Your task to perform on an android device: Open location settings Image 0: 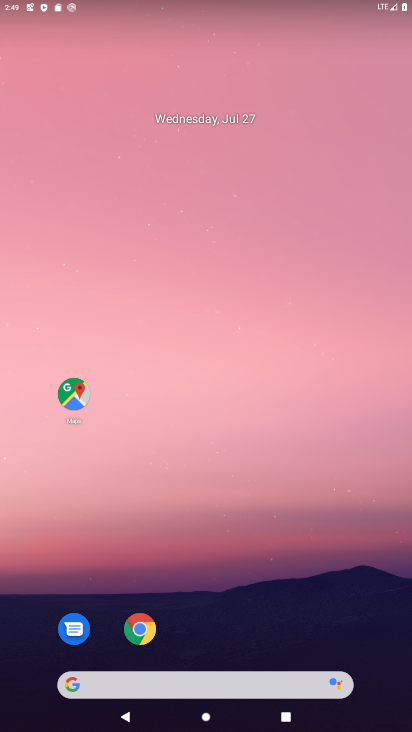
Step 0: drag from (279, 632) to (309, 27)
Your task to perform on an android device: Open location settings Image 1: 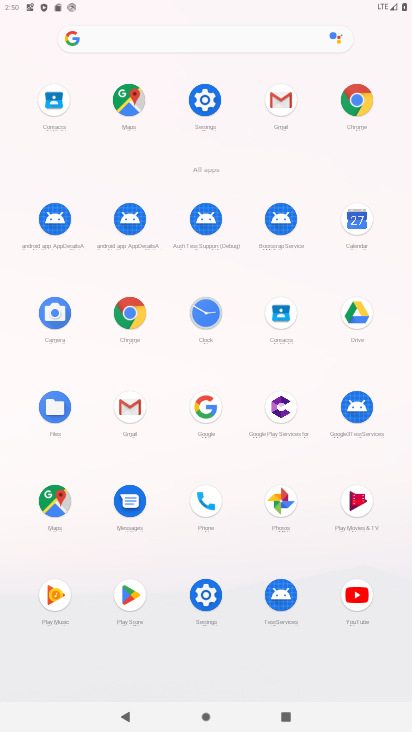
Step 1: click (213, 113)
Your task to perform on an android device: Open location settings Image 2: 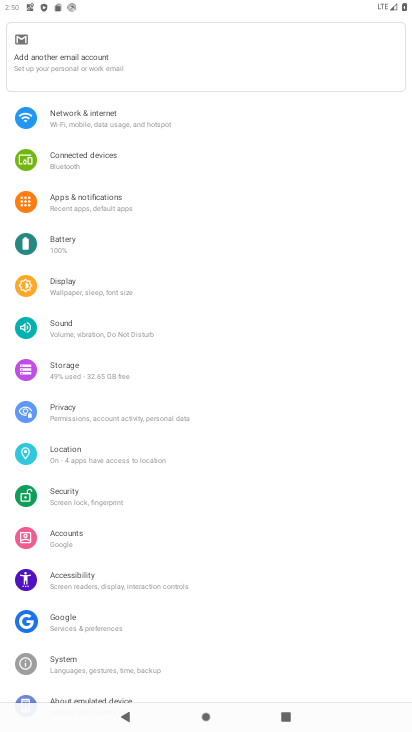
Step 2: click (94, 447)
Your task to perform on an android device: Open location settings Image 3: 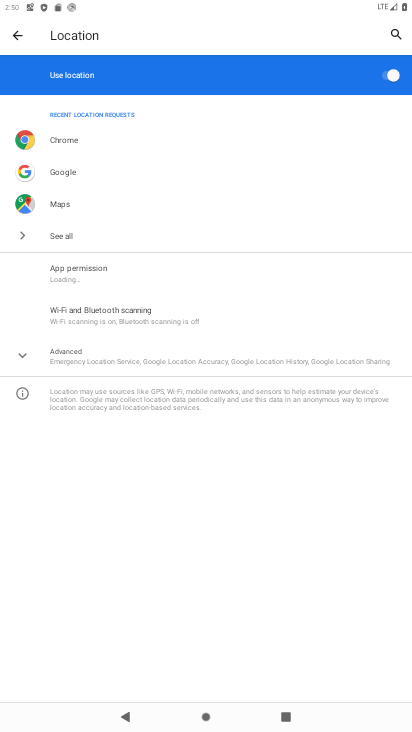
Step 3: task complete